Your task to perform on an android device: What's the weather like in Sydney? Image 0: 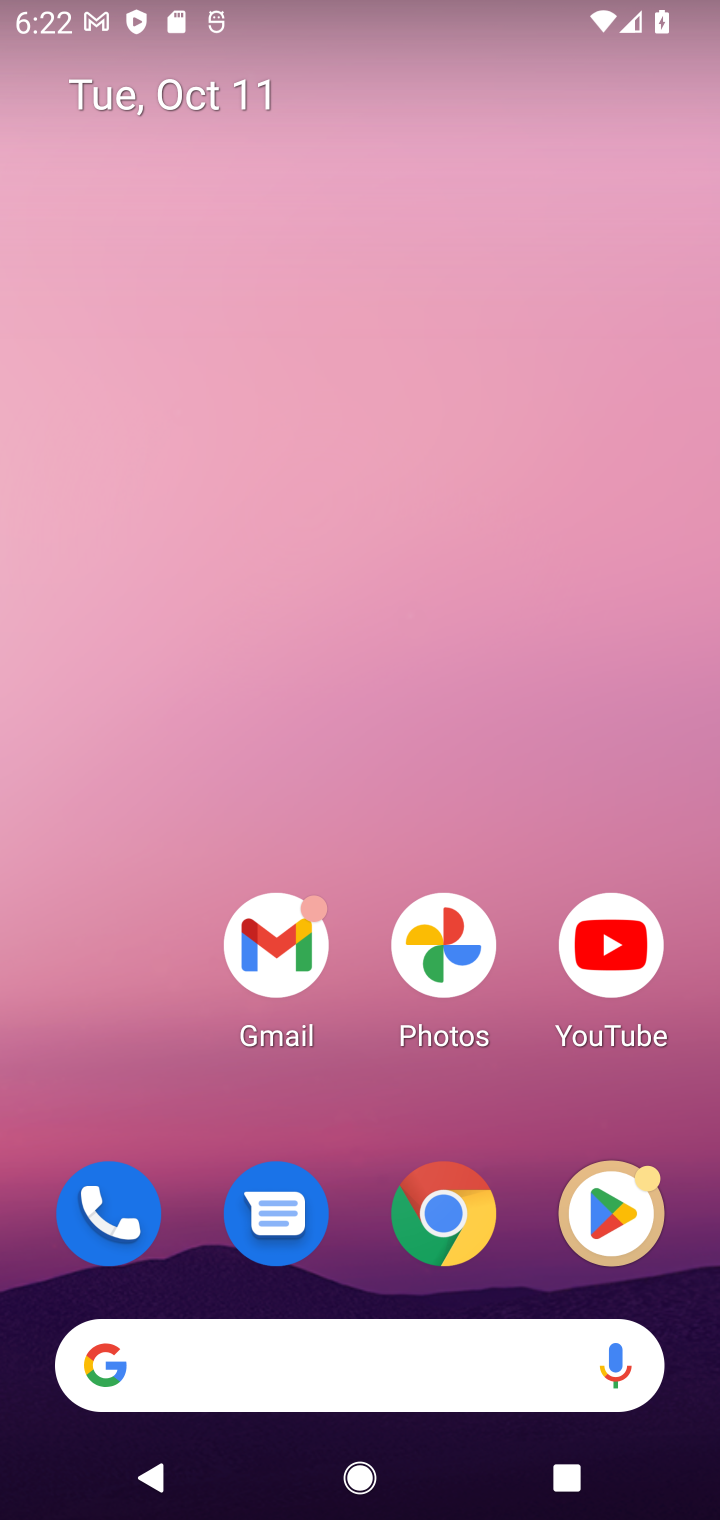
Step 0: drag from (373, 754) to (373, 608)
Your task to perform on an android device: What's the weather like in Sydney? Image 1: 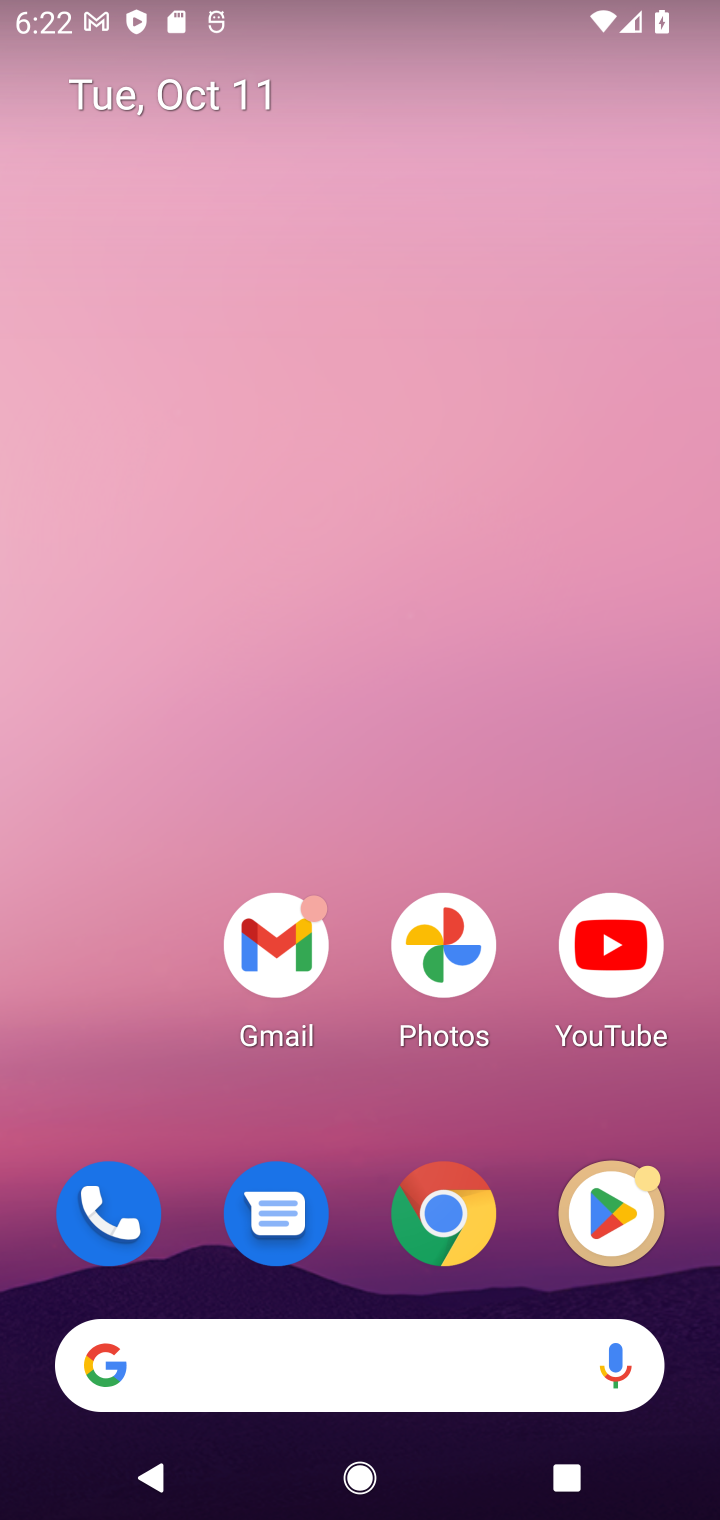
Step 1: drag from (329, 717) to (307, 469)
Your task to perform on an android device: What's the weather like in Sydney? Image 2: 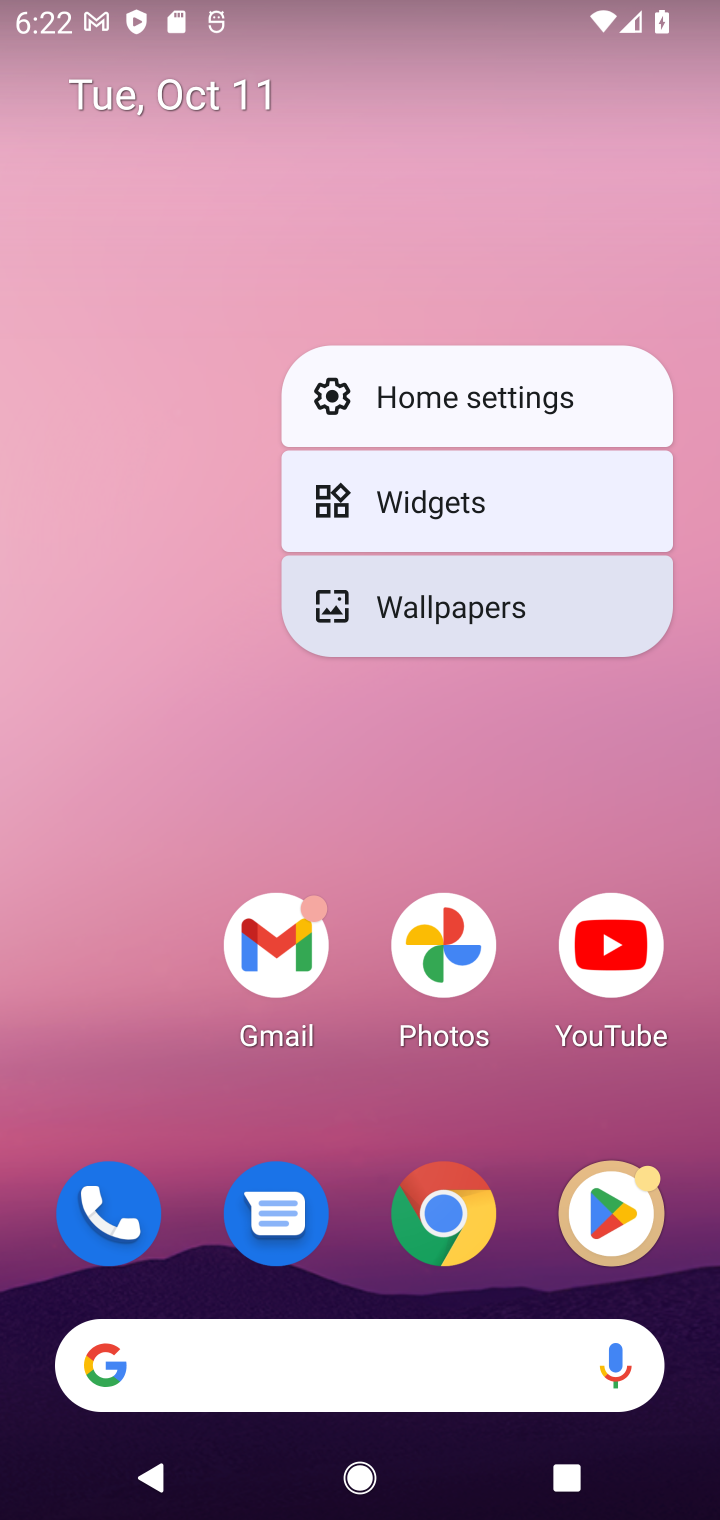
Step 2: click (44, 797)
Your task to perform on an android device: What's the weather like in Sydney? Image 3: 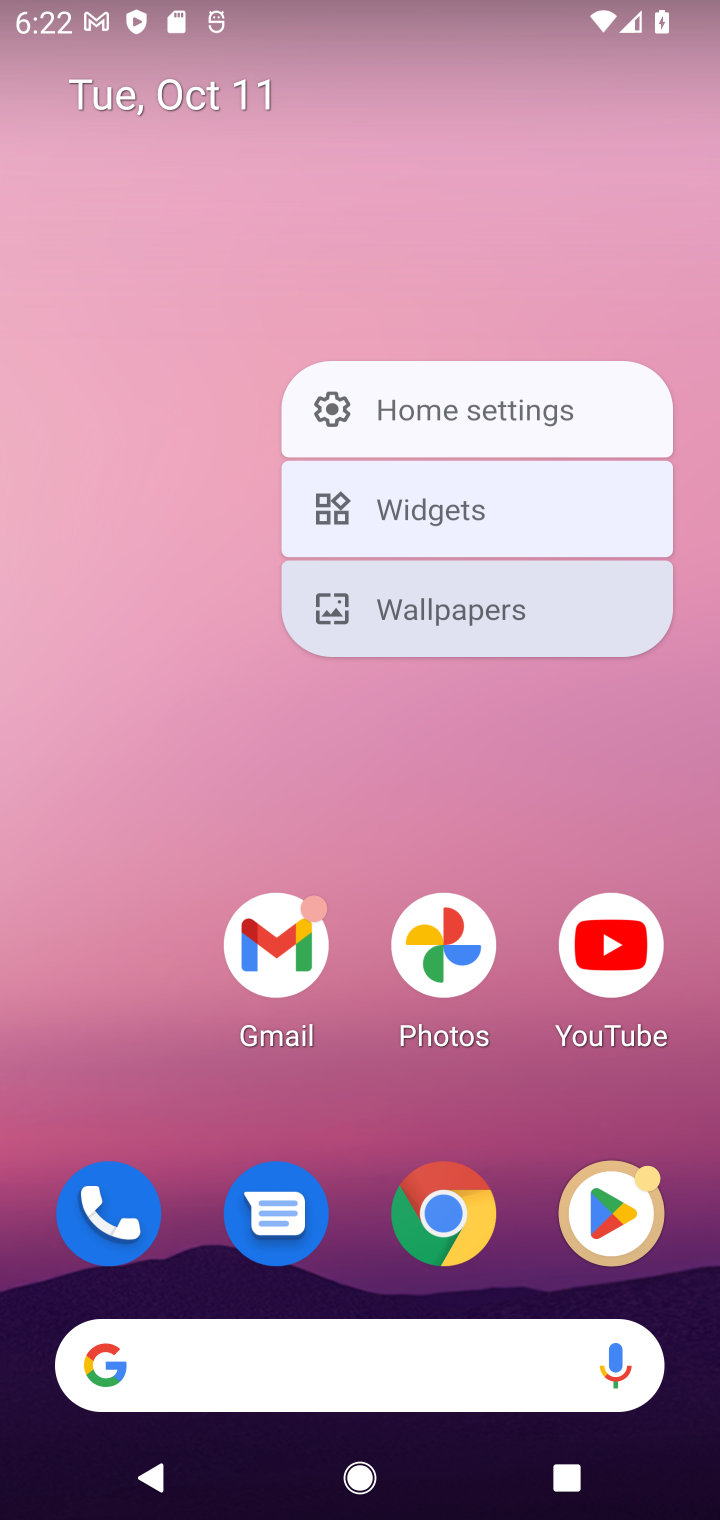
Step 3: drag from (378, 1170) to (263, 467)
Your task to perform on an android device: What's the weather like in Sydney? Image 4: 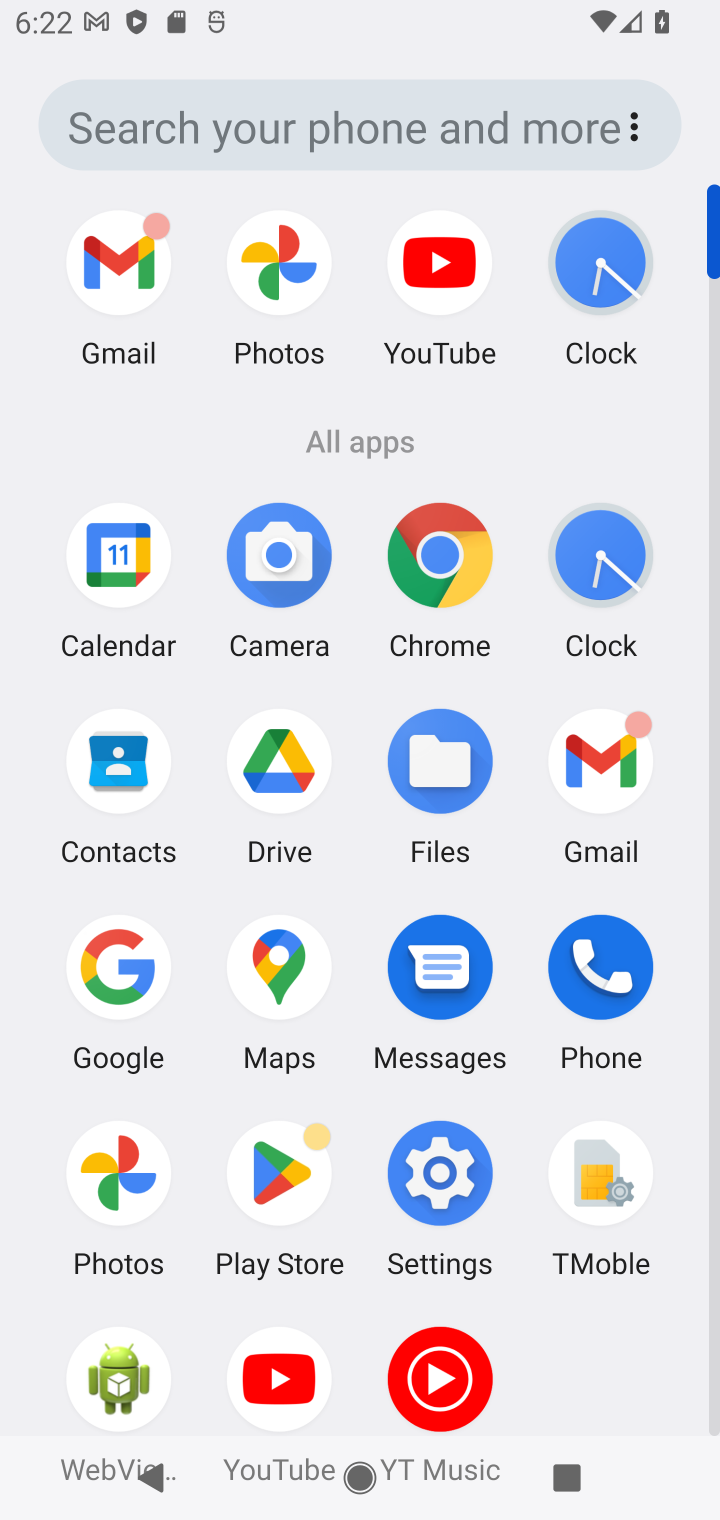
Step 4: click (96, 954)
Your task to perform on an android device: What's the weather like in Sydney? Image 5: 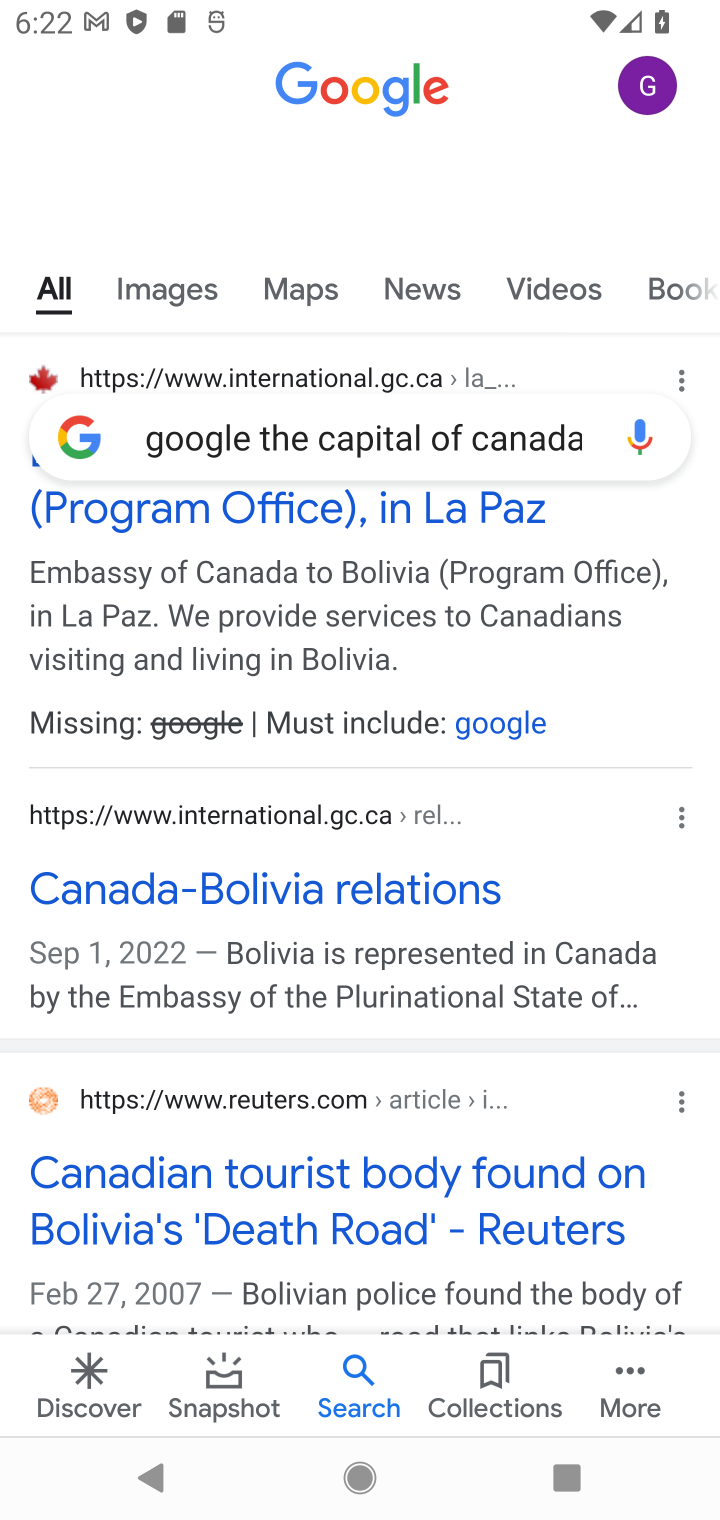
Step 5: click (351, 419)
Your task to perform on an android device: What's the weather like in Sydney? Image 6: 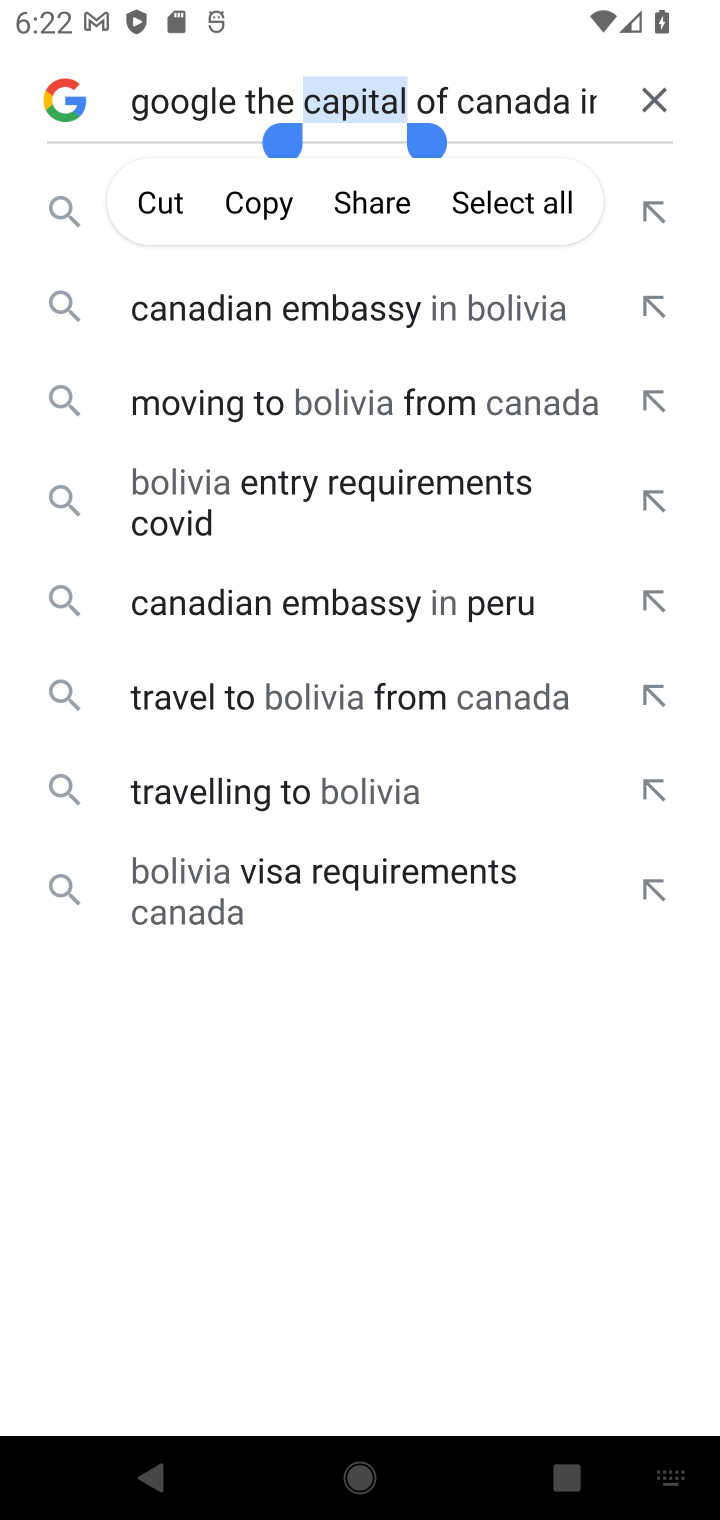
Step 6: click (659, 98)
Your task to perform on an android device: What's the weather like in Sydney? Image 7: 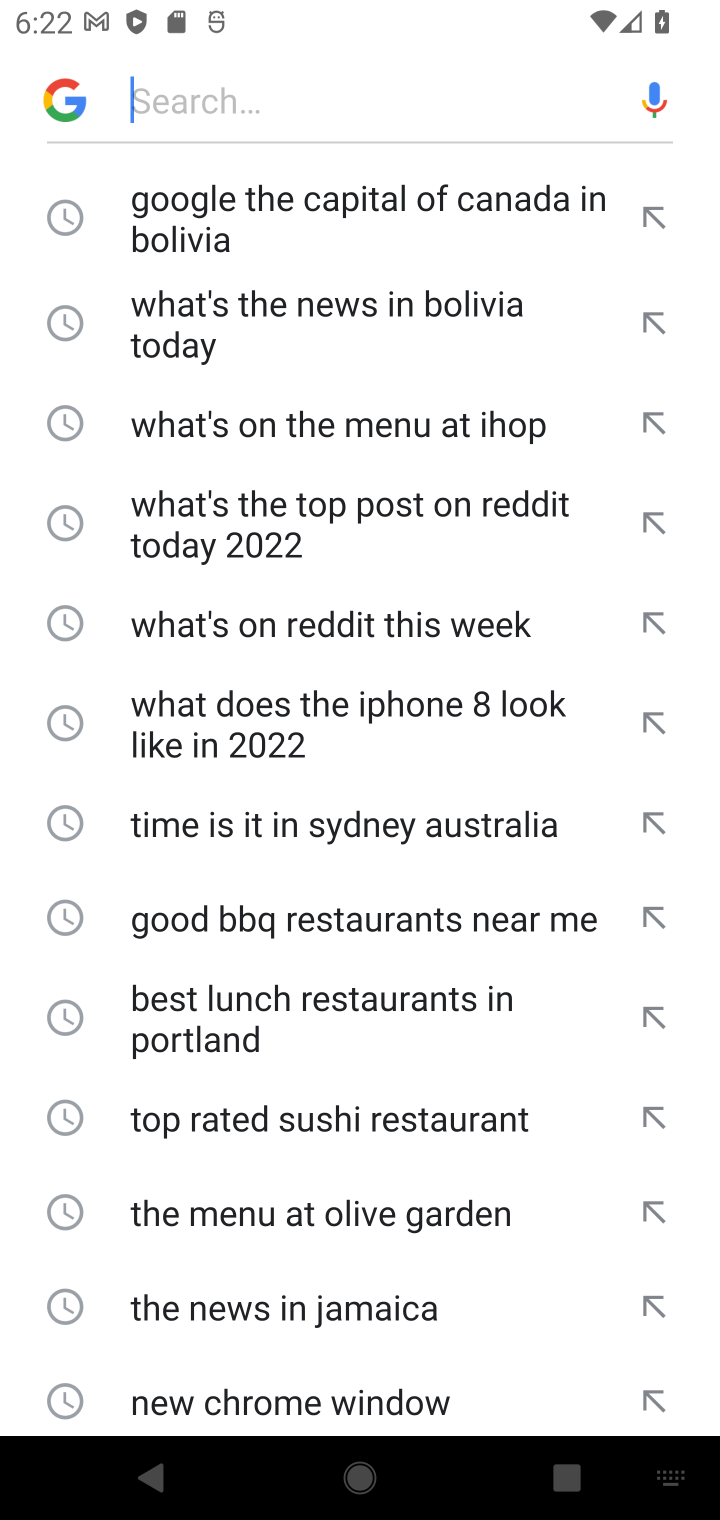
Step 7: click (329, 64)
Your task to perform on an android device: What's the weather like in Sydney? Image 8: 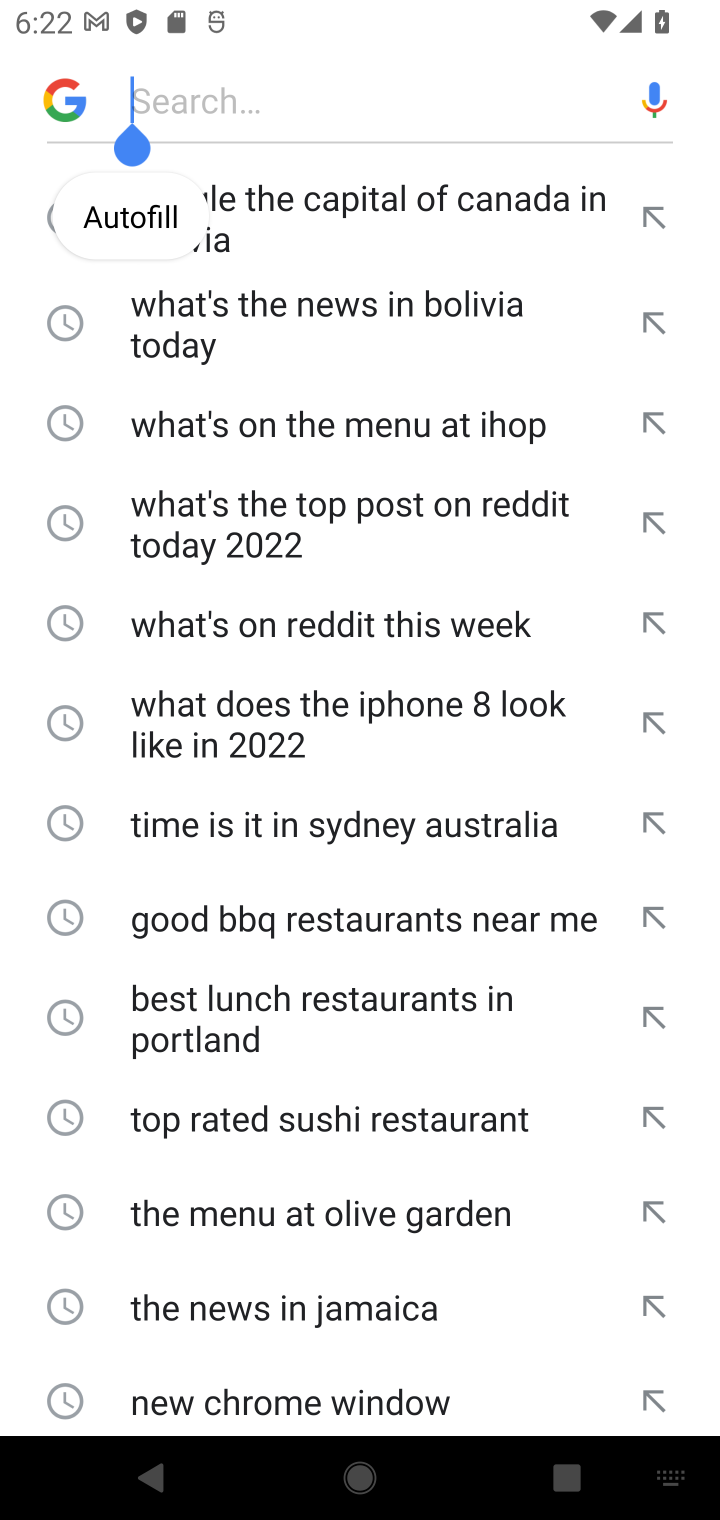
Step 8: type "What's the weather like in Sydney? "
Your task to perform on an android device: What's the weather like in Sydney? Image 9: 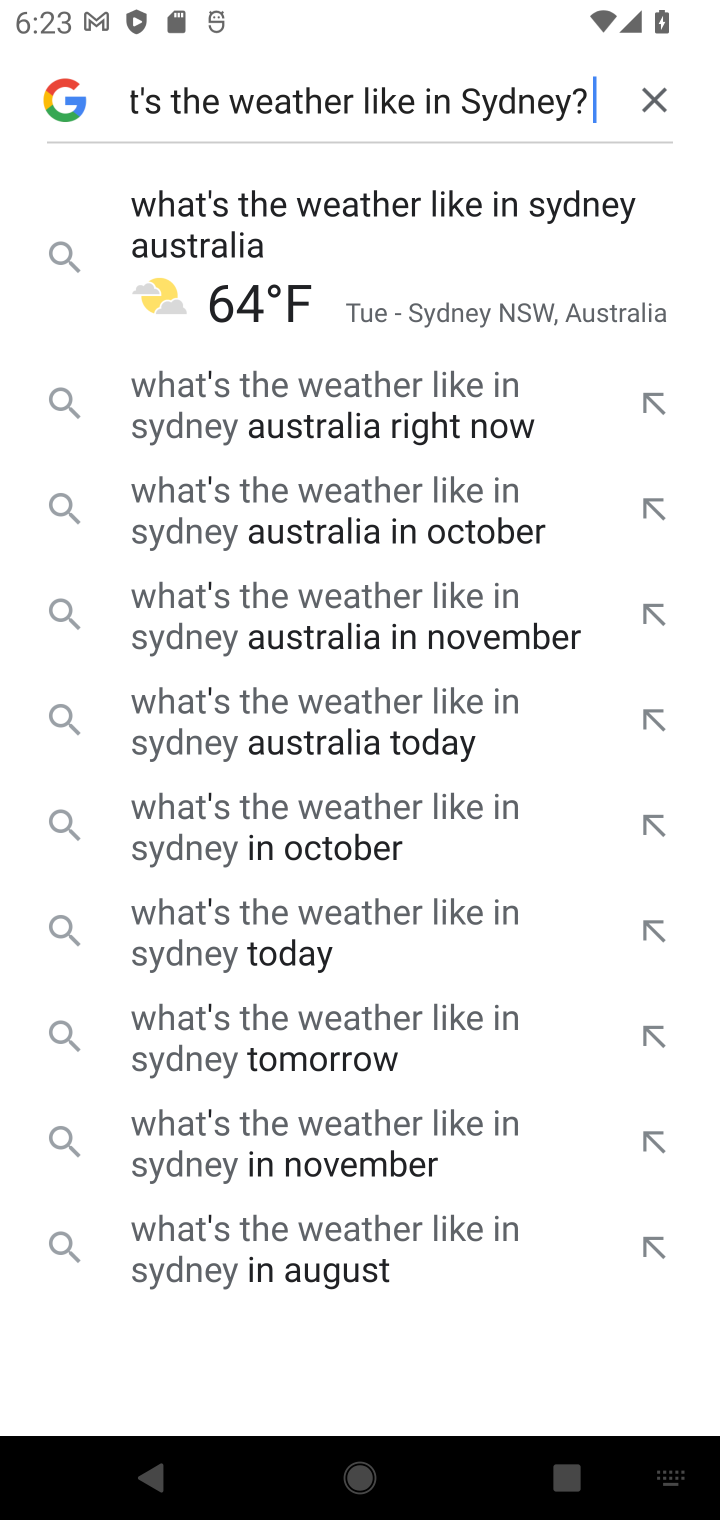
Step 9: click (329, 205)
Your task to perform on an android device: What's the weather like in Sydney? Image 10: 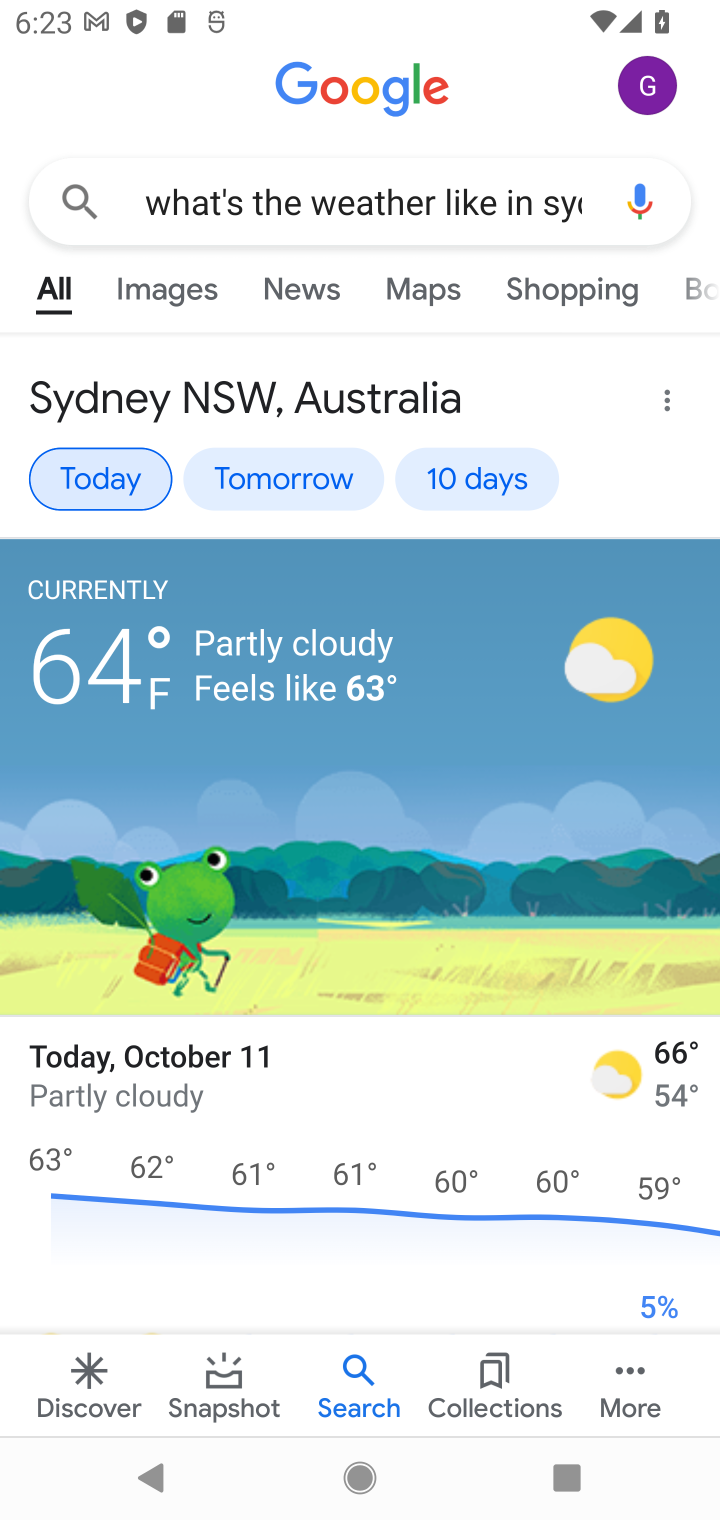
Step 10: task complete